Your task to perform on an android device: Go to Yahoo.com Image 0: 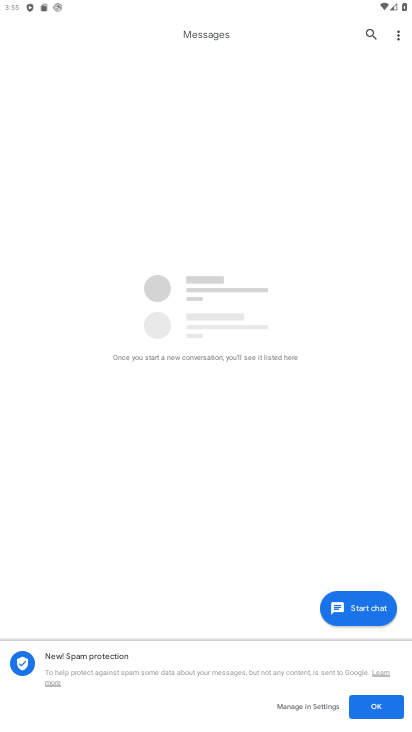
Step 0: press home button
Your task to perform on an android device: Go to Yahoo.com Image 1: 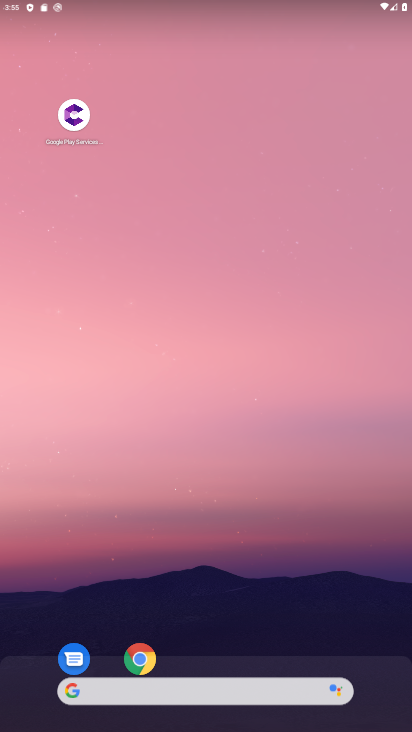
Step 1: click (141, 663)
Your task to perform on an android device: Go to Yahoo.com Image 2: 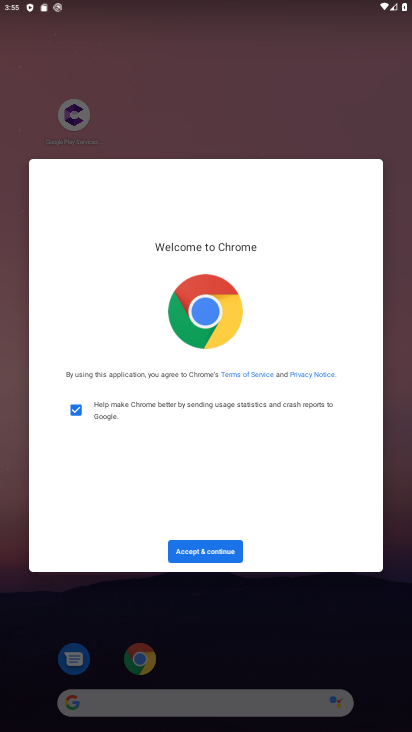
Step 2: click (196, 560)
Your task to perform on an android device: Go to Yahoo.com Image 3: 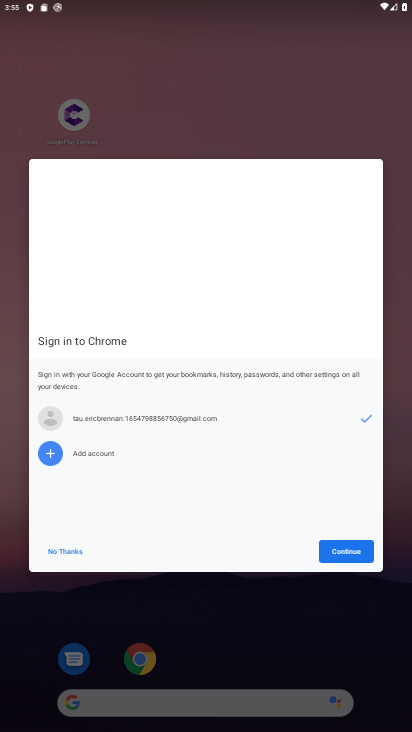
Step 3: click (360, 542)
Your task to perform on an android device: Go to Yahoo.com Image 4: 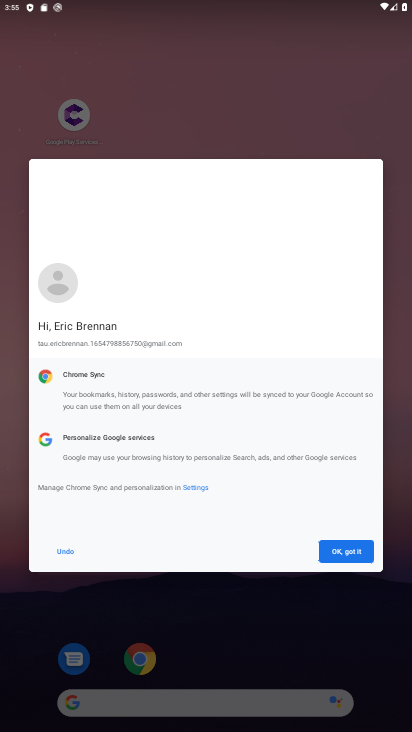
Step 4: click (338, 541)
Your task to perform on an android device: Go to Yahoo.com Image 5: 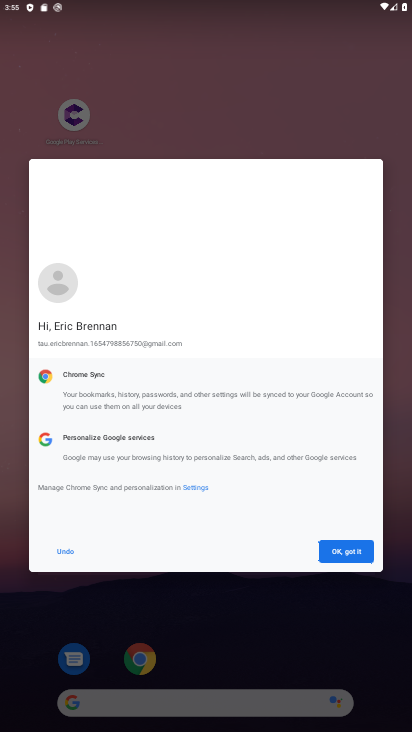
Step 5: click (339, 549)
Your task to perform on an android device: Go to Yahoo.com Image 6: 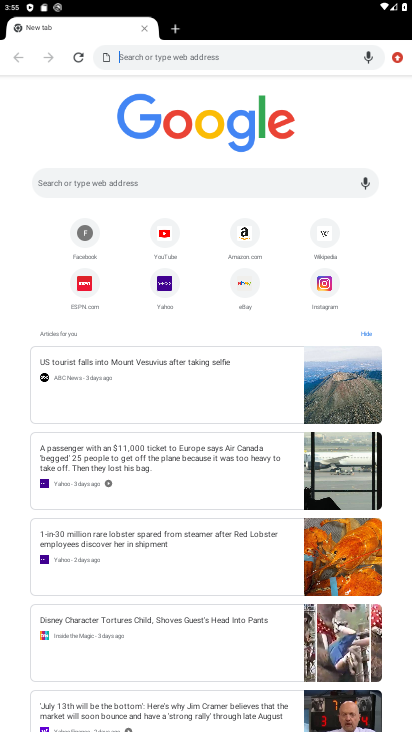
Step 6: click (159, 292)
Your task to perform on an android device: Go to Yahoo.com Image 7: 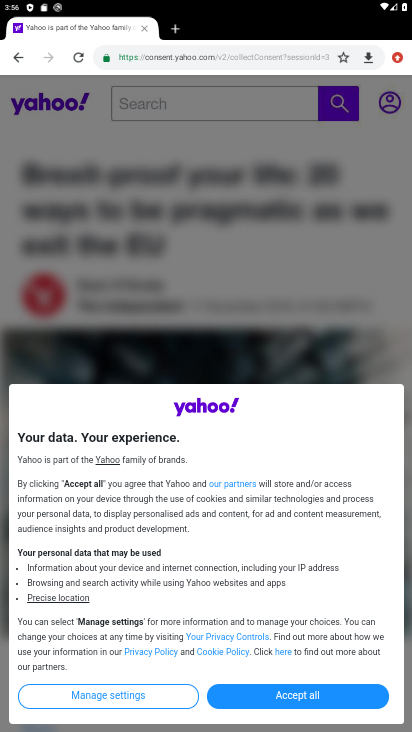
Step 7: task complete